Your task to perform on an android device: open the mobile data screen to see how much data has been used Image 0: 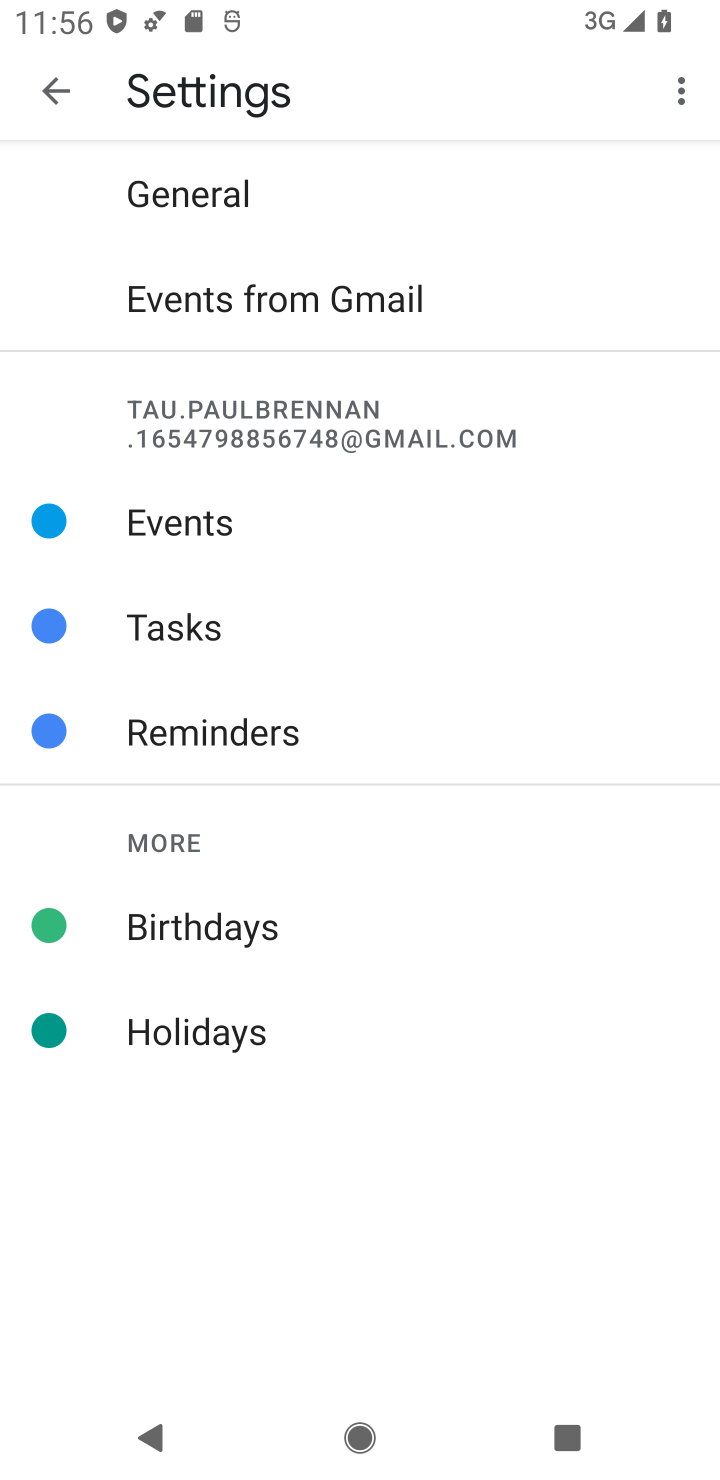
Step 0: press home button
Your task to perform on an android device: open the mobile data screen to see how much data has been used Image 1: 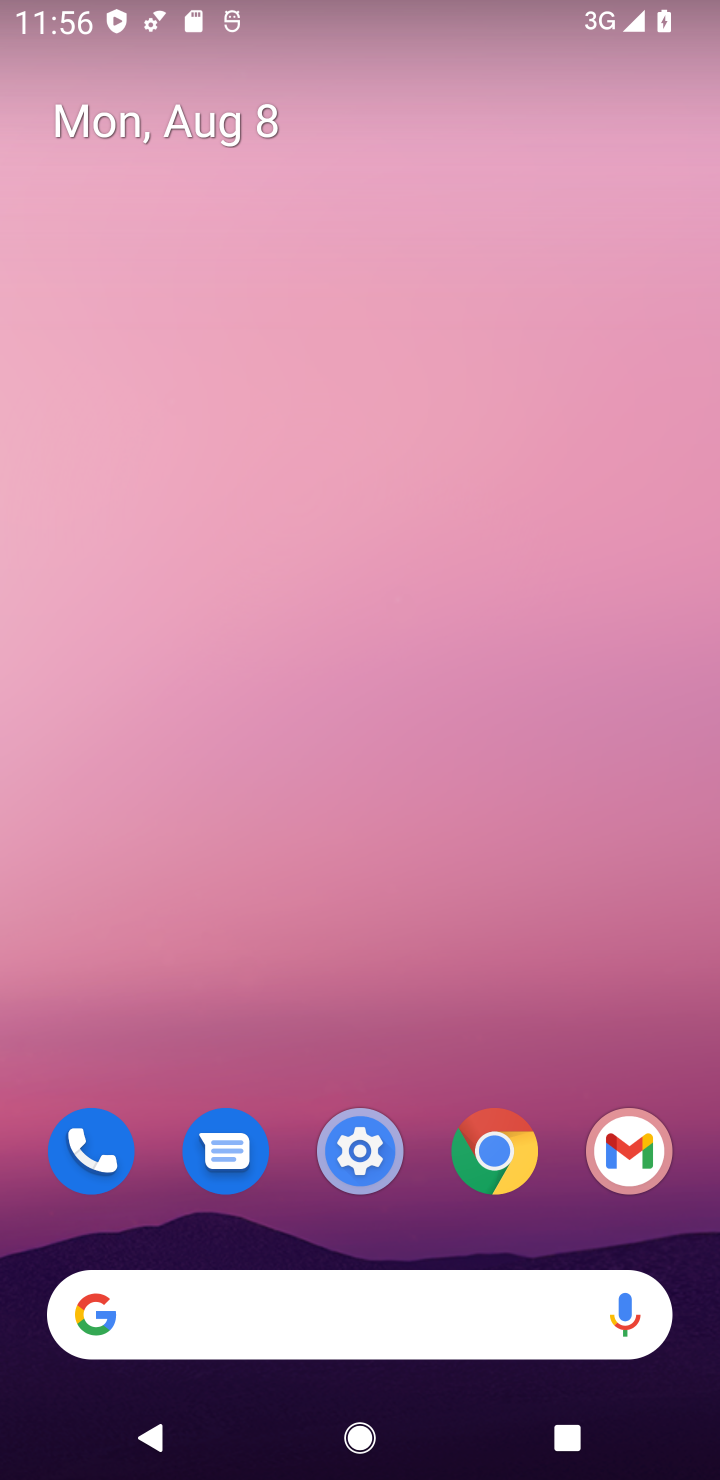
Step 1: drag from (193, 845) to (193, 272)
Your task to perform on an android device: open the mobile data screen to see how much data has been used Image 2: 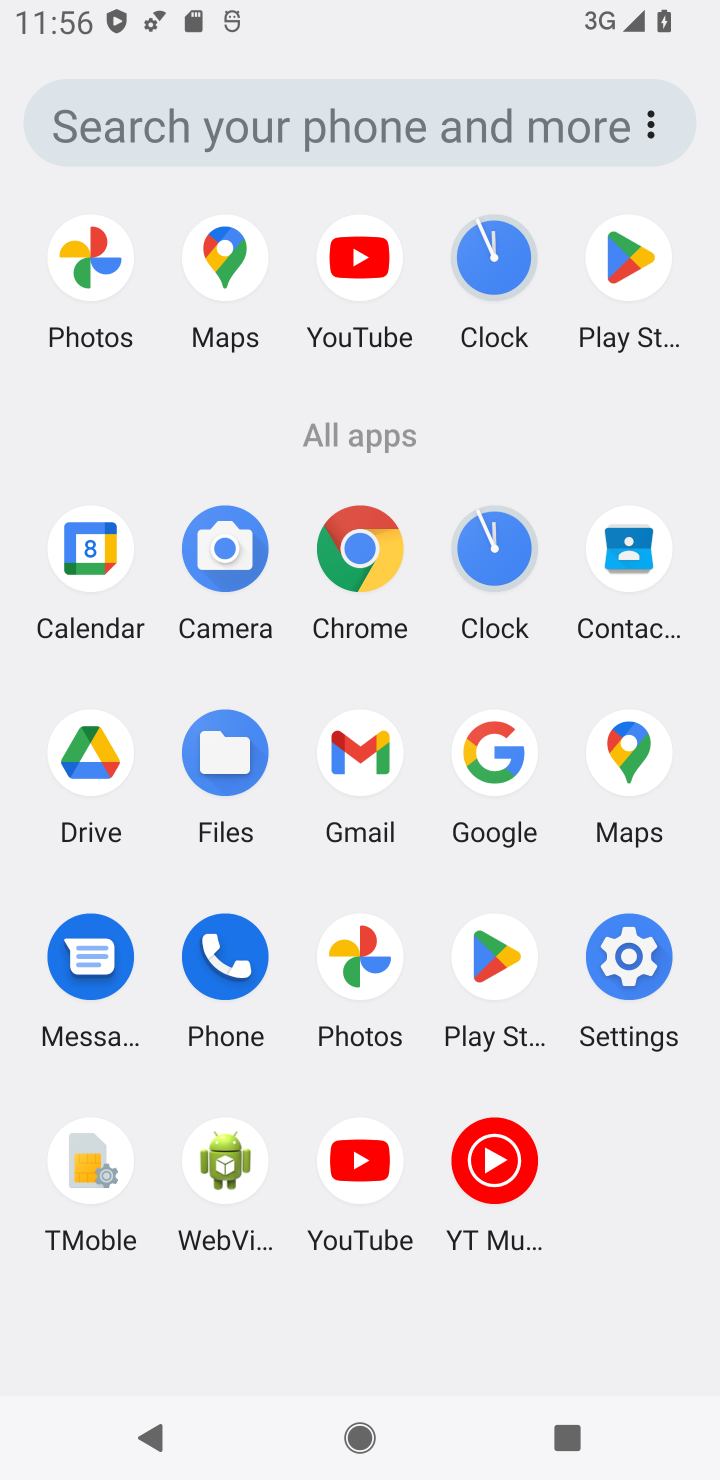
Step 2: click (624, 960)
Your task to perform on an android device: open the mobile data screen to see how much data has been used Image 3: 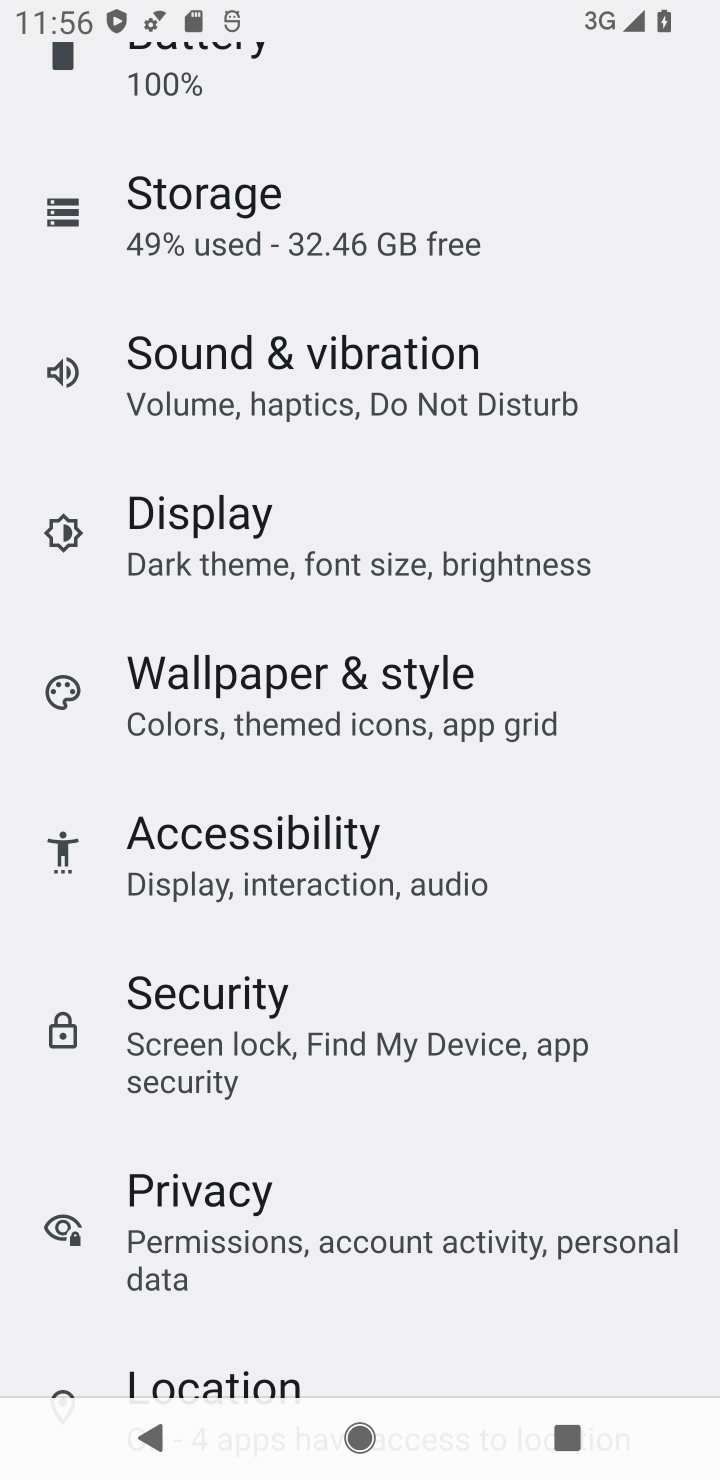
Step 3: drag from (183, 179) to (281, 1117)
Your task to perform on an android device: open the mobile data screen to see how much data has been used Image 4: 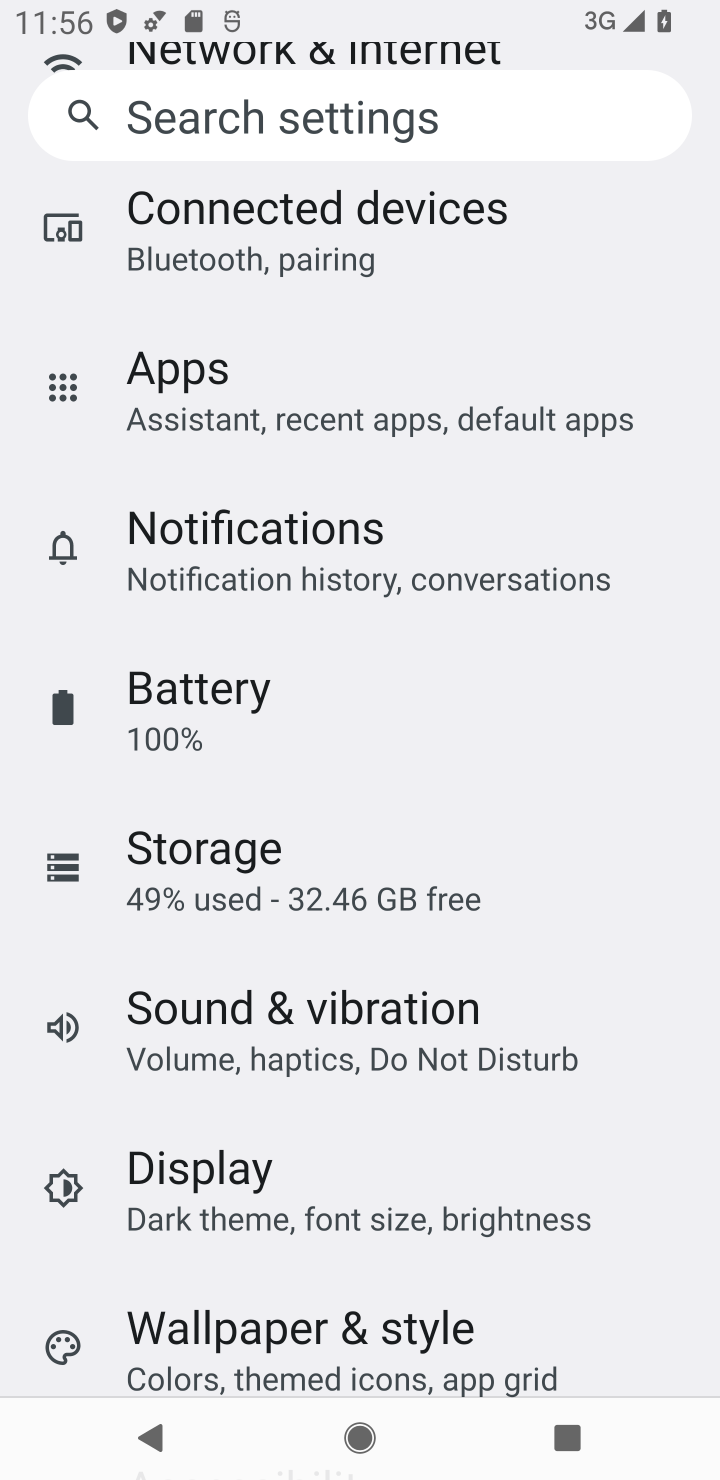
Step 4: drag from (168, 271) to (285, 1114)
Your task to perform on an android device: open the mobile data screen to see how much data has been used Image 5: 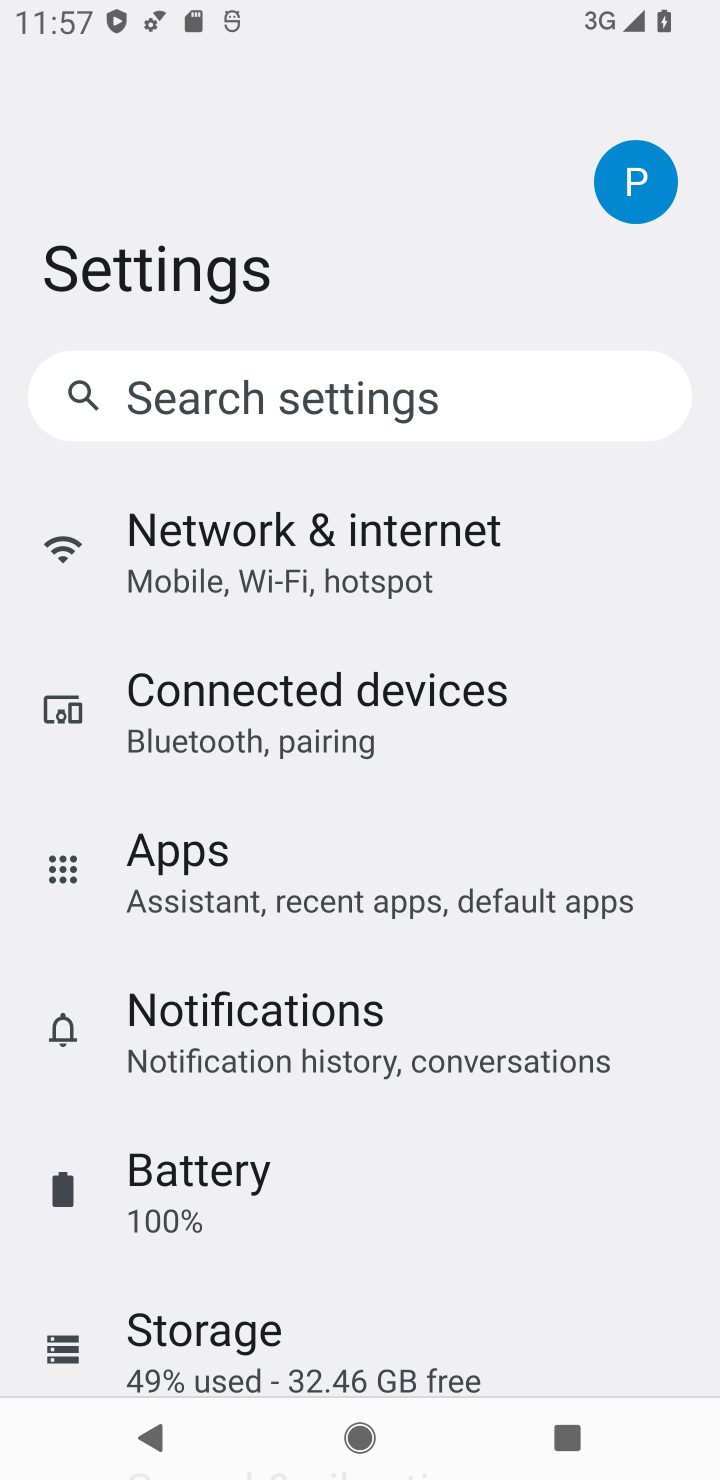
Step 5: click (249, 538)
Your task to perform on an android device: open the mobile data screen to see how much data has been used Image 6: 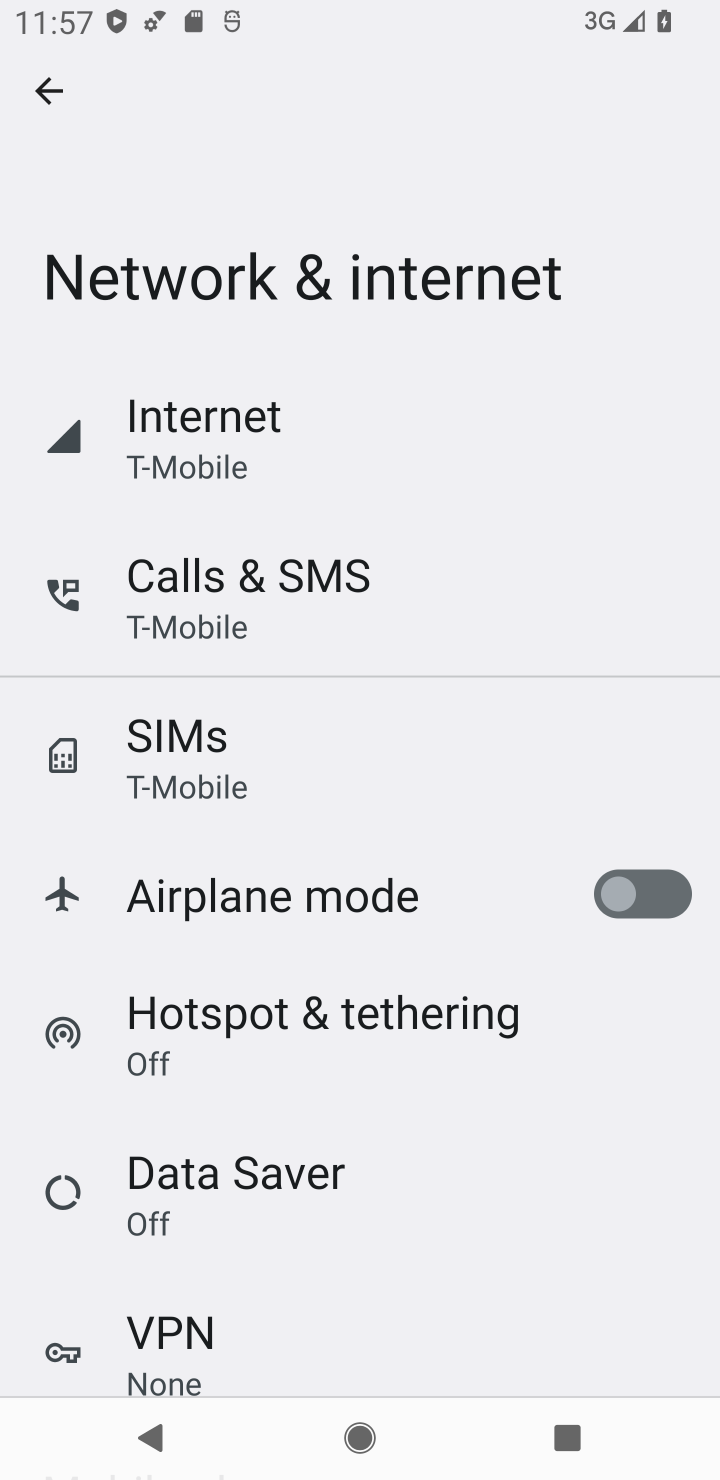
Step 6: click (213, 418)
Your task to perform on an android device: open the mobile data screen to see how much data has been used Image 7: 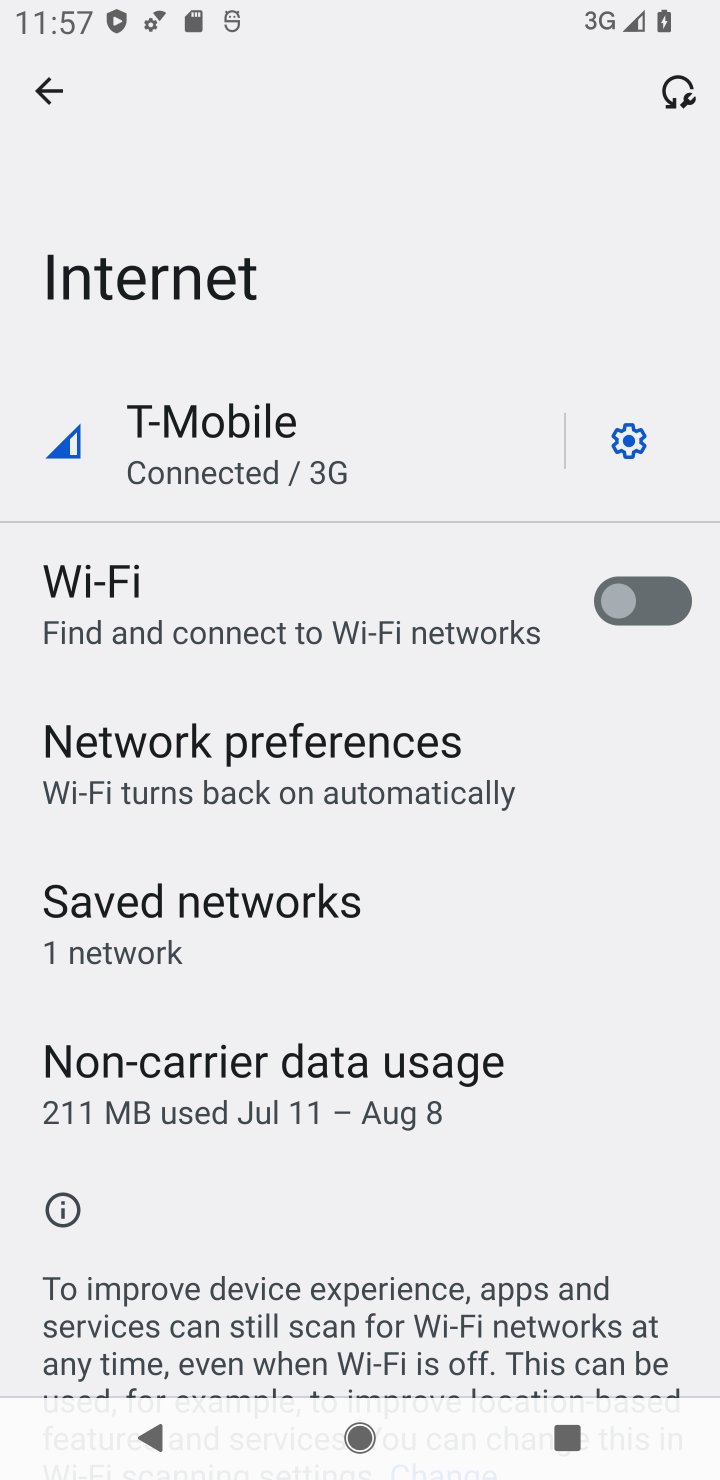
Step 7: drag from (468, 1311) to (369, 647)
Your task to perform on an android device: open the mobile data screen to see how much data has been used Image 8: 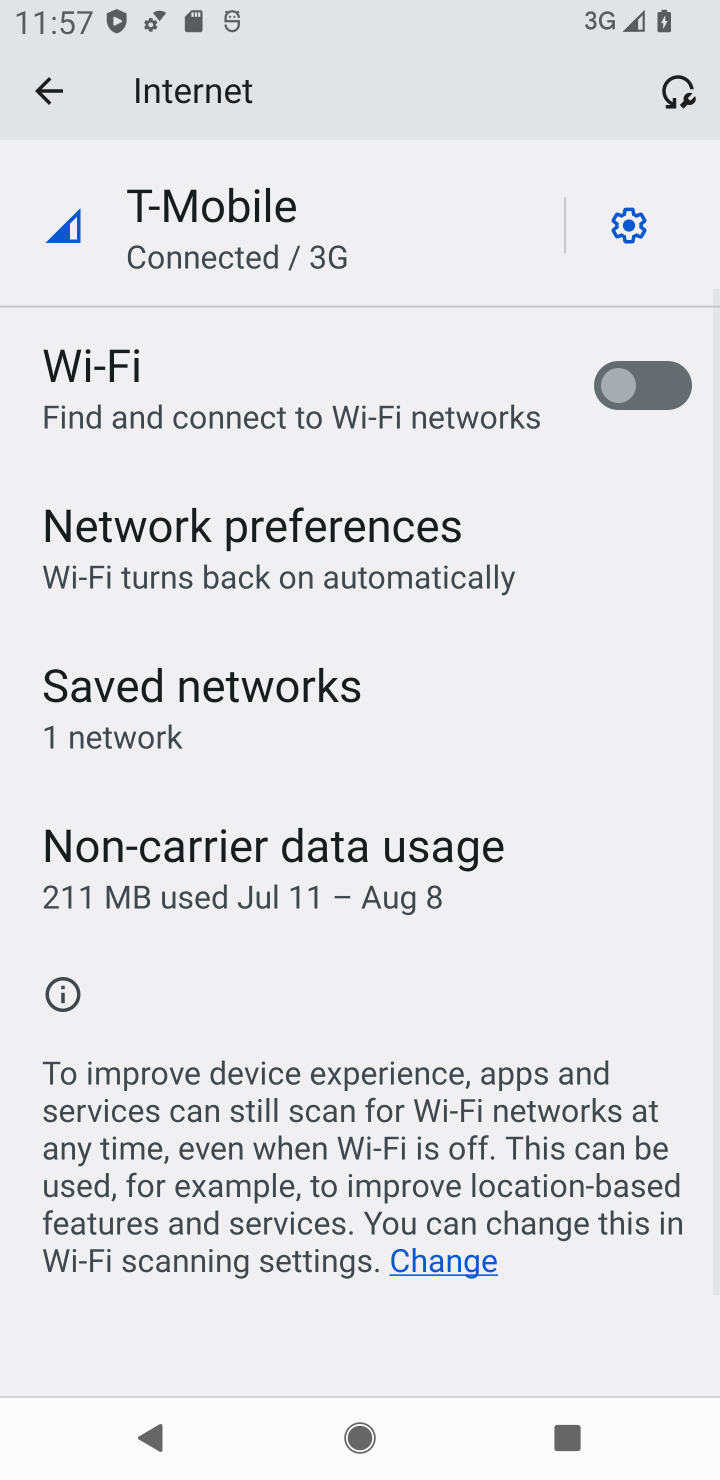
Step 8: click (218, 880)
Your task to perform on an android device: open the mobile data screen to see how much data has been used Image 9: 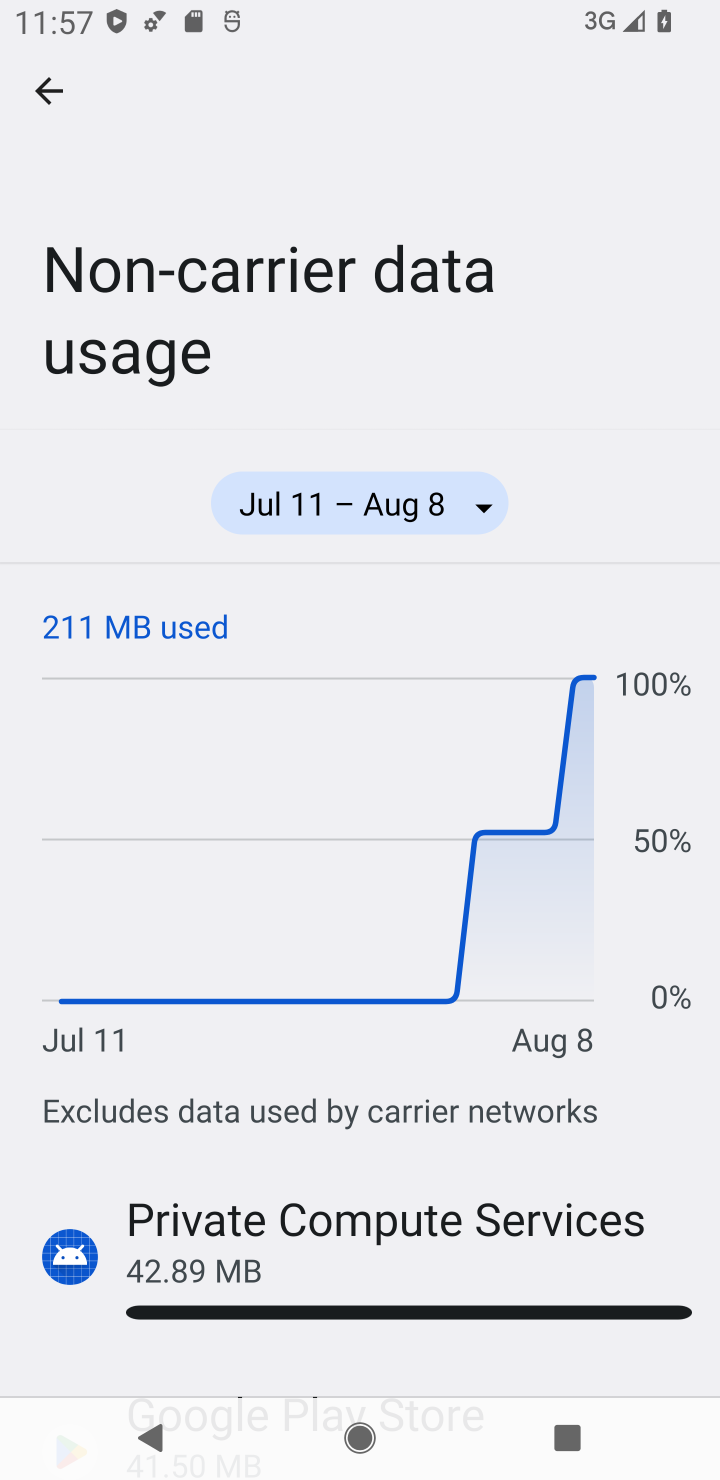
Step 9: task complete